Your task to perform on an android device: Go to network settings Image 0: 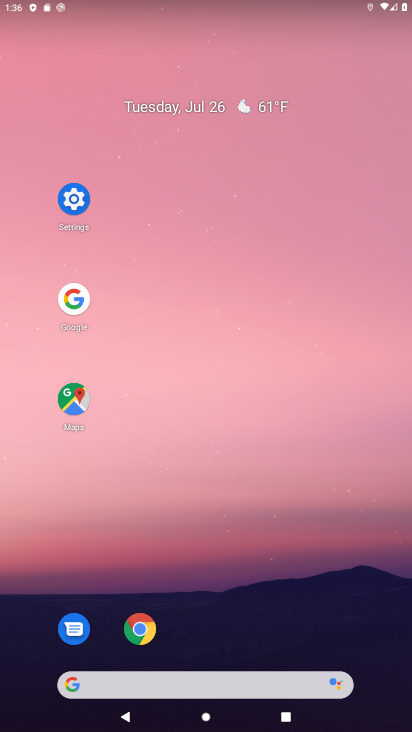
Step 0: click (65, 202)
Your task to perform on an android device: Go to network settings Image 1: 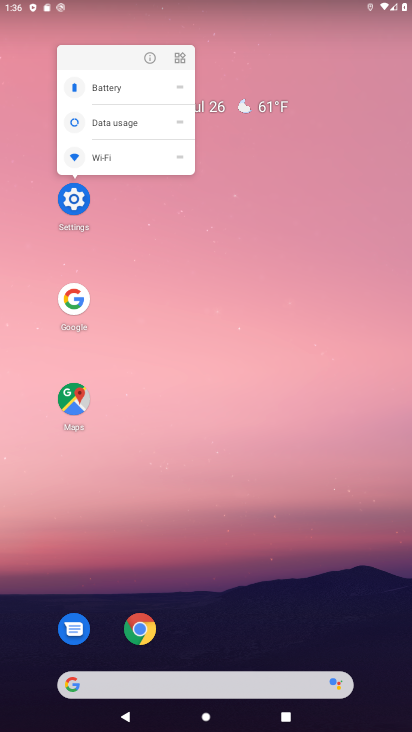
Step 1: click (66, 202)
Your task to perform on an android device: Go to network settings Image 2: 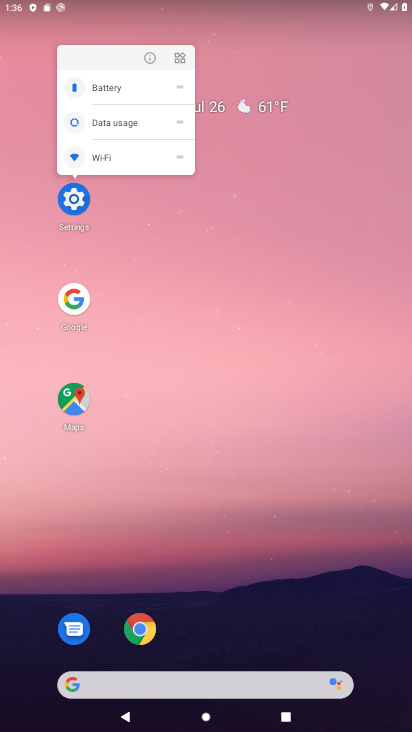
Step 2: click (66, 202)
Your task to perform on an android device: Go to network settings Image 3: 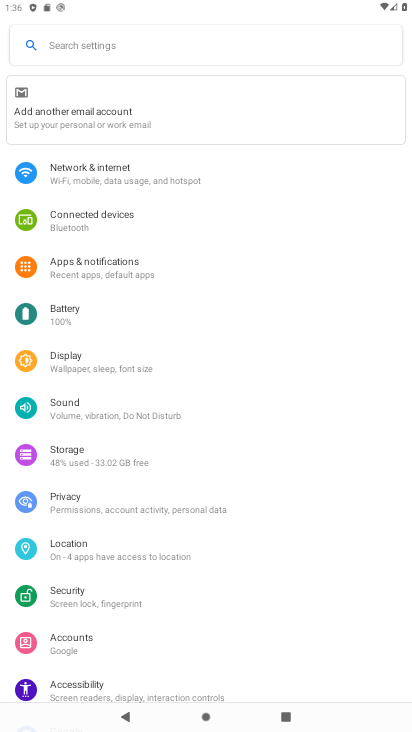
Step 3: click (167, 175)
Your task to perform on an android device: Go to network settings Image 4: 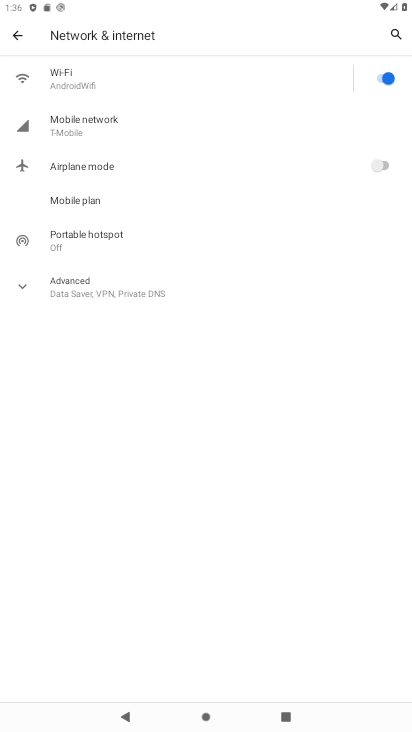
Step 4: task complete